Your task to perform on an android device: turn pop-ups off in chrome Image 0: 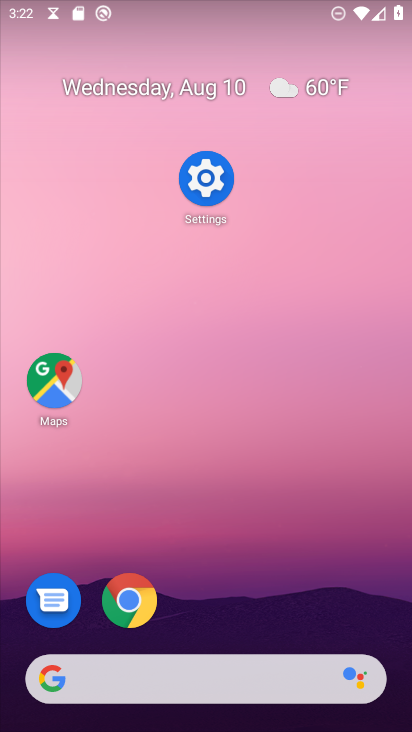
Step 0: click (128, 613)
Your task to perform on an android device: turn pop-ups off in chrome Image 1: 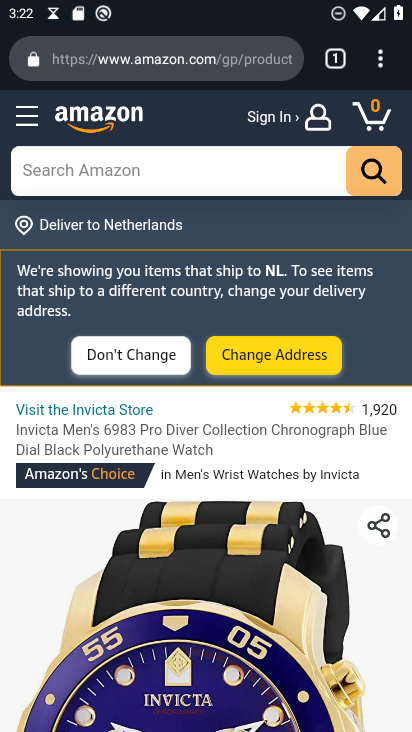
Step 1: drag from (387, 55) to (173, 632)
Your task to perform on an android device: turn pop-ups off in chrome Image 2: 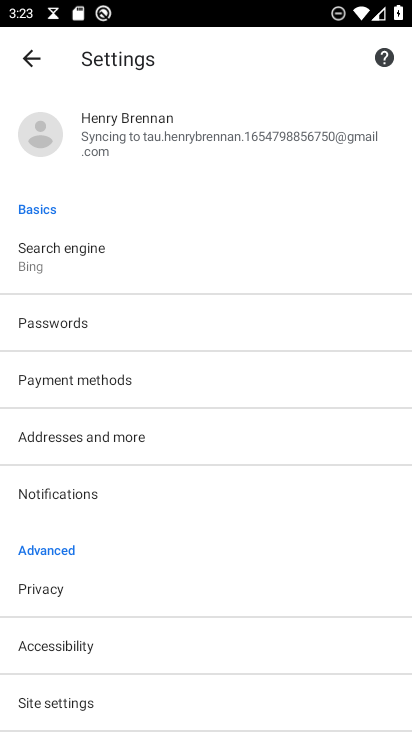
Step 2: click (67, 708)
Your task to perform on an android device: turn pop-ups off in chrome Image 3: 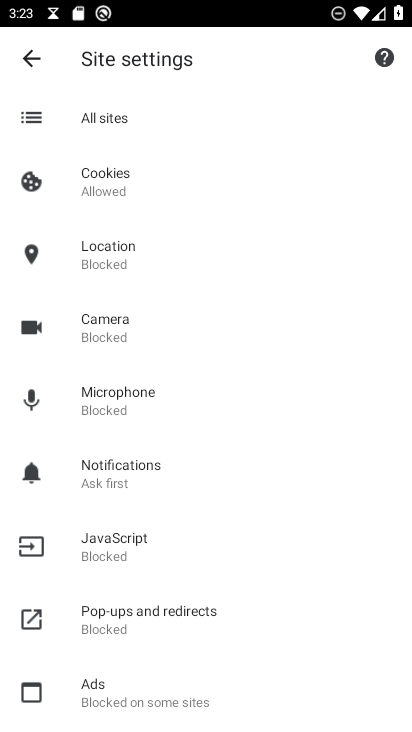
Step 3: click (126, 620)
Your task to perform on an android device: turn pop-ups off in chrome Image 4: 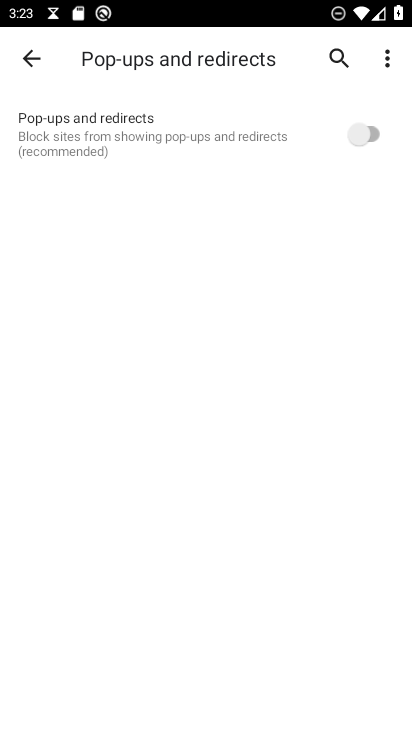
Step 4: task complete